Your task to perform on an android device: Set the phone to "Do not disturb". Image 0: 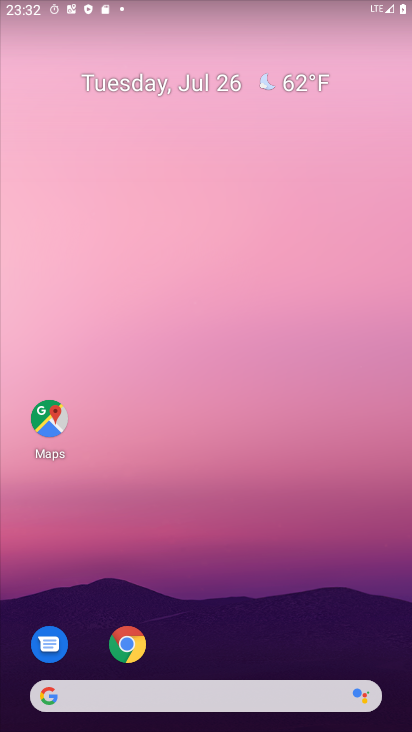
Step 0: drag from (230, 616) to (211, 51)
Your task to perform on an android device: Set the phone to "Do not disturb". Image 1: 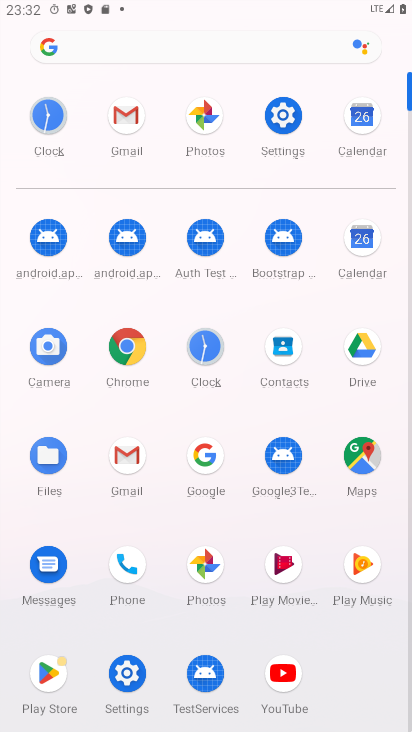
Step 1: click (282, 131)
Your task to perform on an android device: Set the phone to "Do not disturb". Image 2: 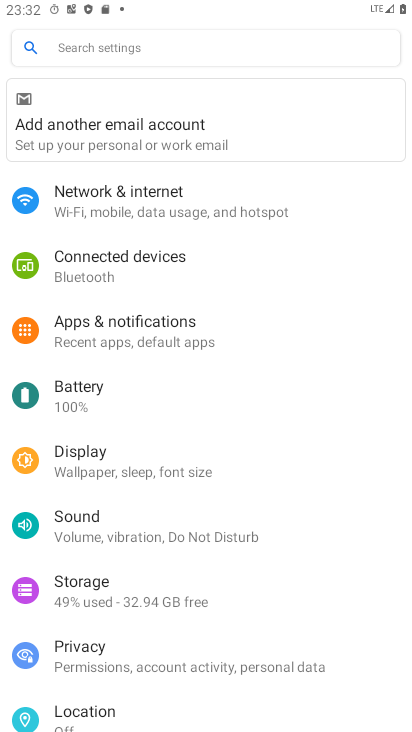
Step 2: click (91, 518)
Your task to perform on an android device: Set the phone to "Do not disturb". Image 3: 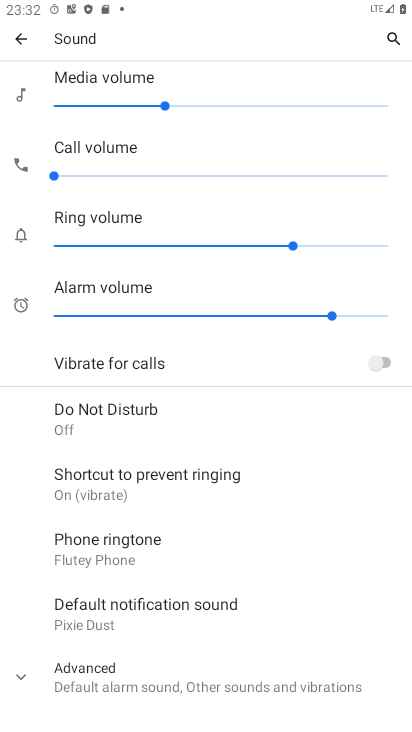
Step 3: click (85, 428)
Your task to perform on an android device: Set the phone to "Do not disturb". Image 4: 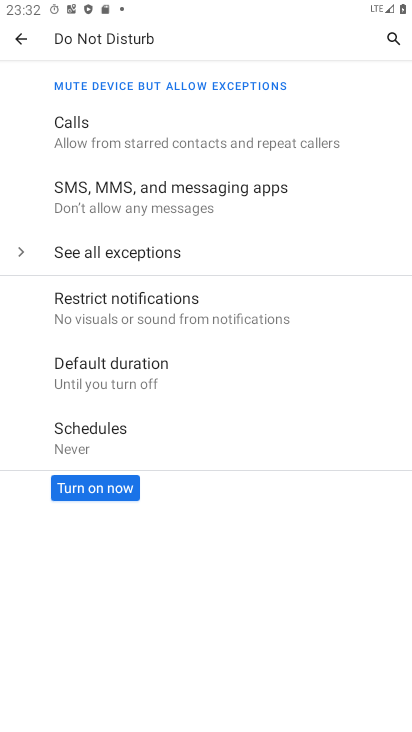
Step 4: click (77, 491)
Your task to perform on an android device: Set the phone to "Do not disturb". Image 5: 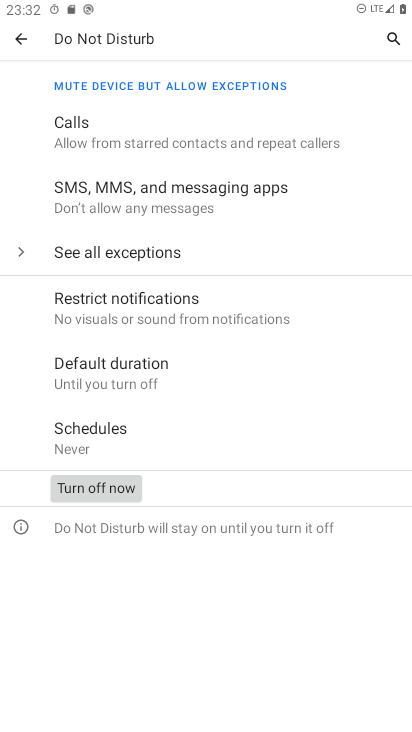
Step 5: task complete